Your task to perform on an android device: What's the weather today? Image 0: 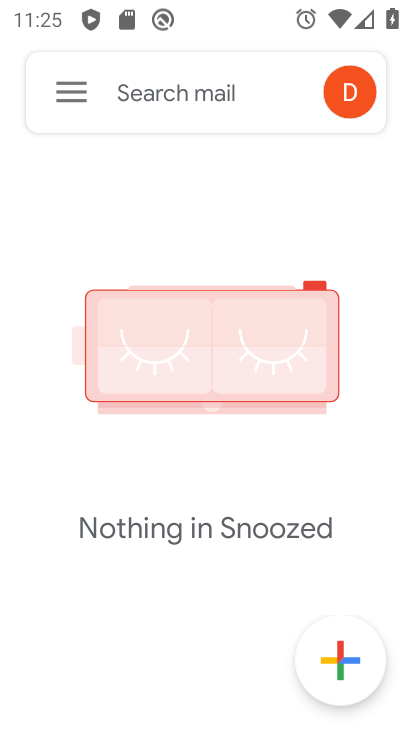
Step 0: press home button
Your task to perform on an android device: What's the weather today? Image 1: 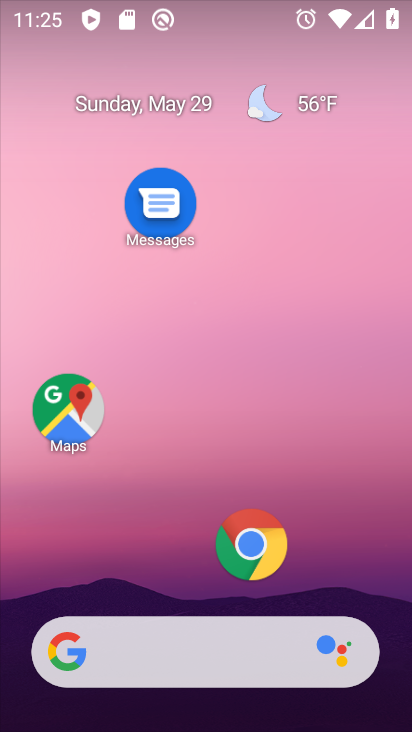
Step 1: click (303, 101)
Your task to perform on an android device: What's the weather today? Image 2: 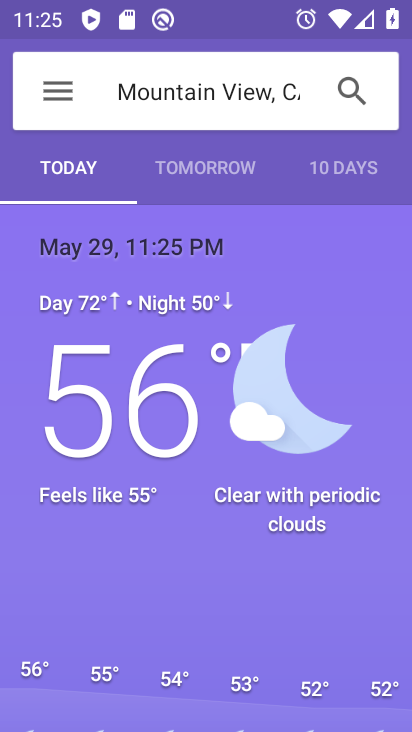
Step 2: task complete